Your task to perform on an android device: turn on priority inbox in the gmail app Image 0: 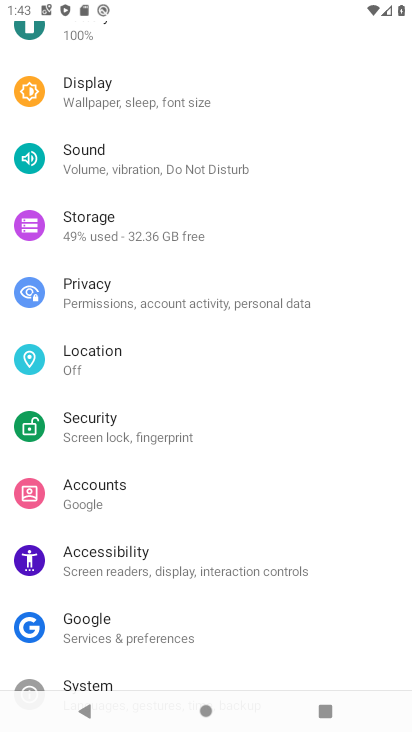
Step 0: press home button
Your task to perform on an android device: turn on priority inbox in the gmail app Image 1: 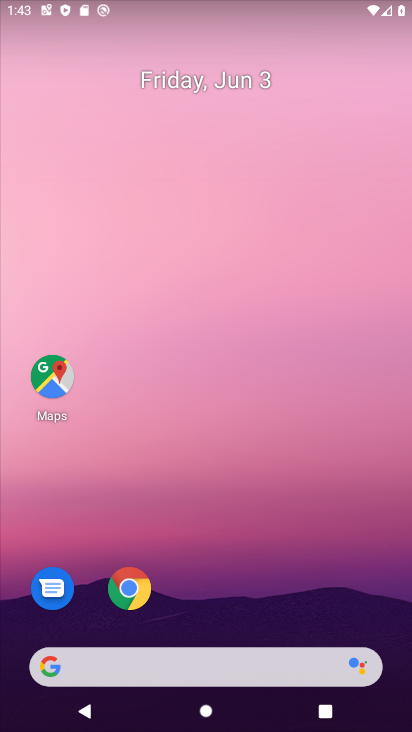
Step 1: drag from (27, 492) to (226, 18)
Your task to perform on an android device: turn on priority inbox in the gmail app Image 2: 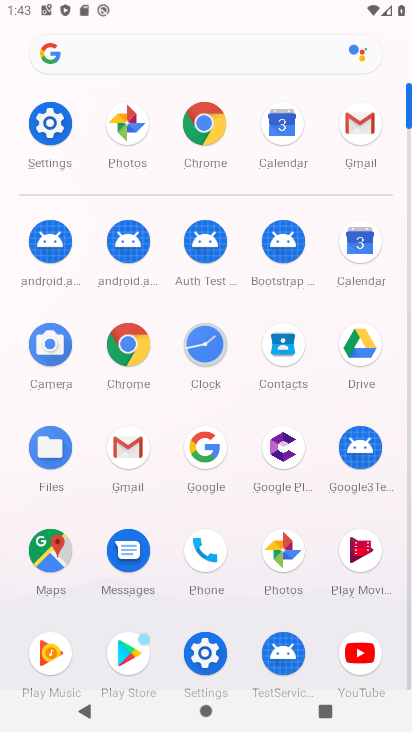
Step 2: click (356, 124)
Your task to perform on an android device: turn on priority inbox in the gmail app Image 3: 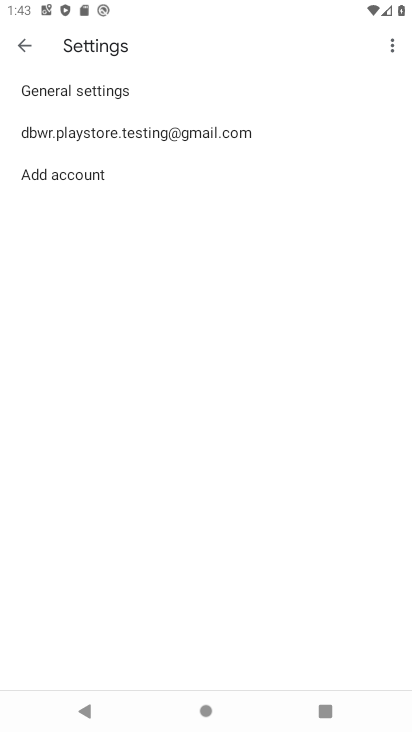
Step 3: click (175, 128)
Your task to perform on an android device: turn on priority inbox in the gmail app Image 4: 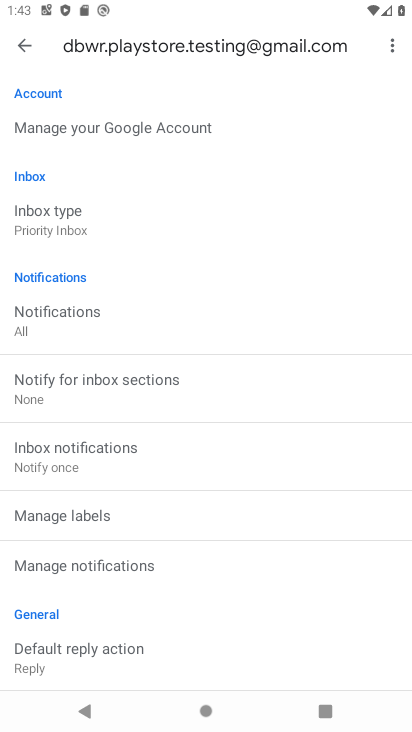
Step 4: click (87, 225)
Your task to perform on an android device: turn on priority inbox in the gmail app Image 5: 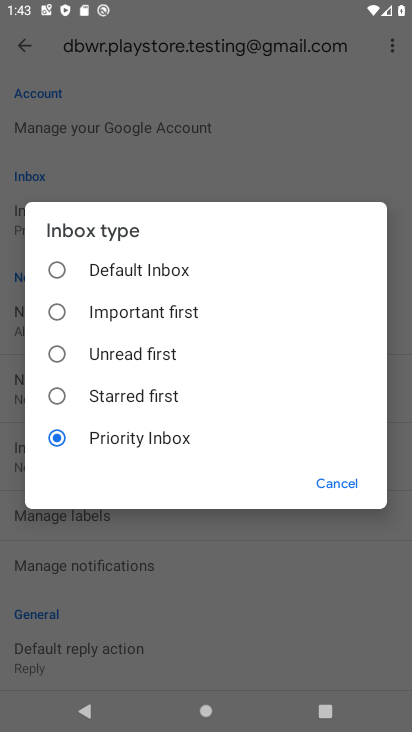
Step 5: task complete